Your task to perform on an android device: open app "Airtel Thanks" Image 0: 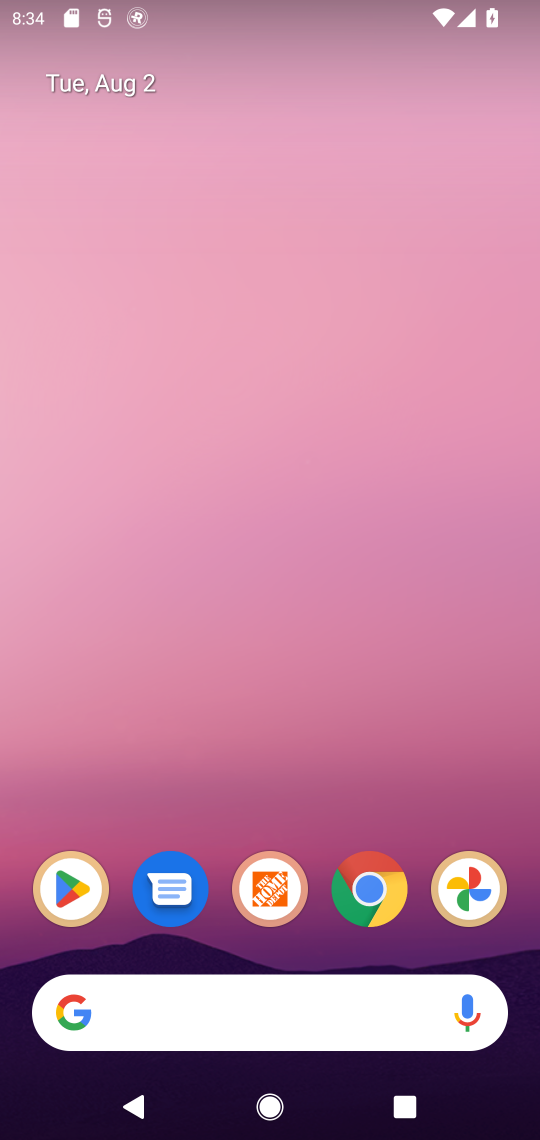
Step 0: press home button
Your task to perform on an android device: open app "Airtel Thanks" Image 1: 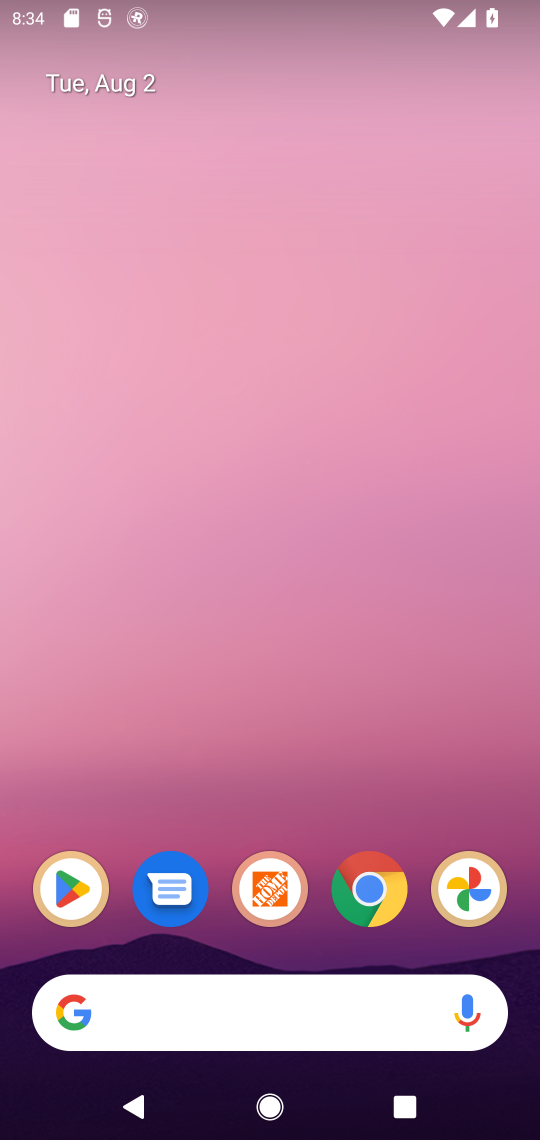
Step 1: click (62, 892)
Your task to perform on an android device: open app "Airtel Thanks" Image 2: 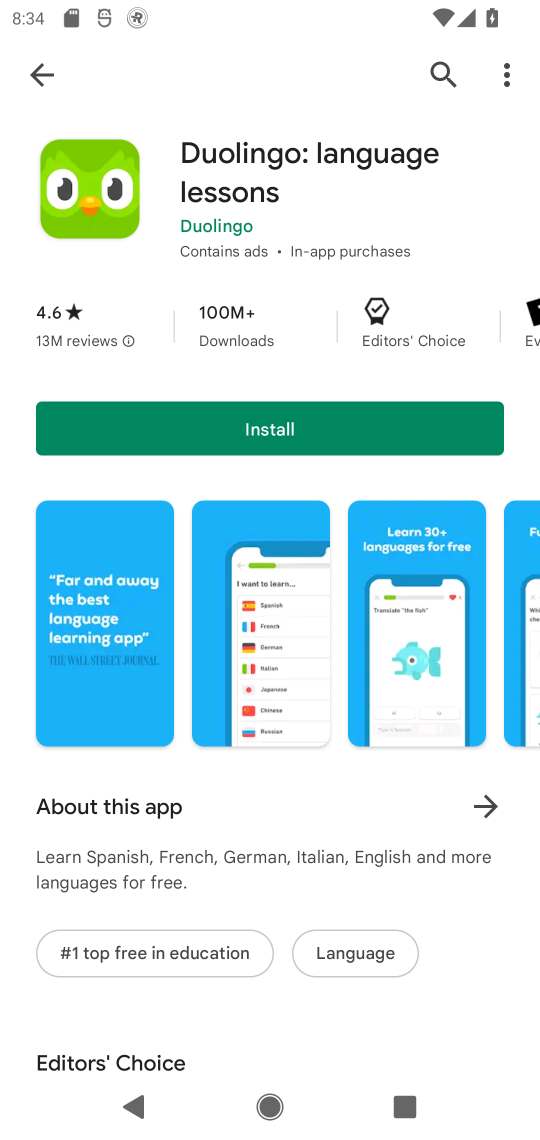
Step 2: click (446, 66)
Your task to perform on an android device: open app "Airtel Thanks" Image 3: 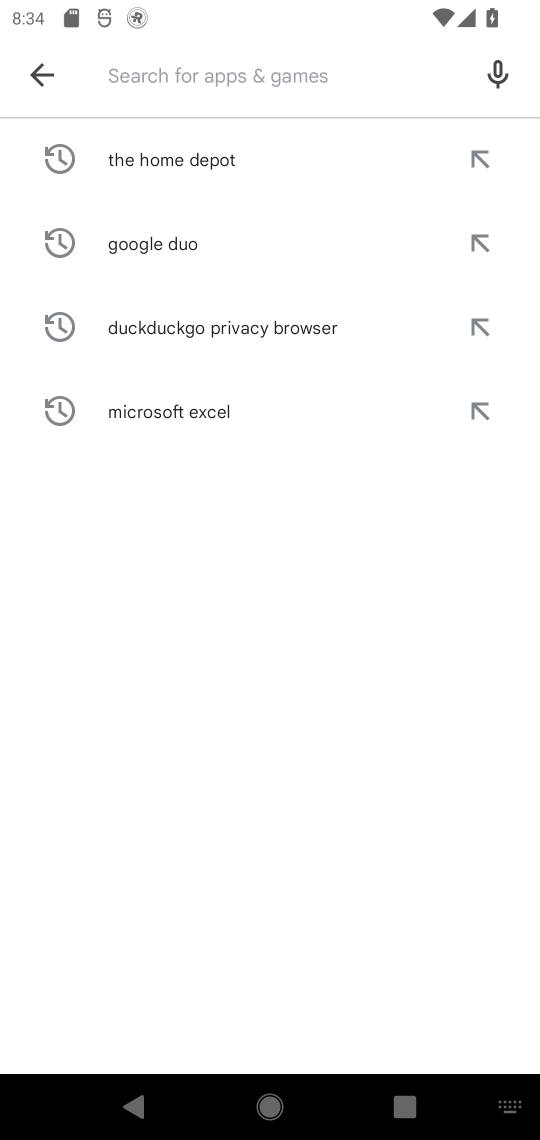
Step 3: type "Airtel Thanks"
Your task to perform on an android device: open app "Airtel Thanks" Image 4: 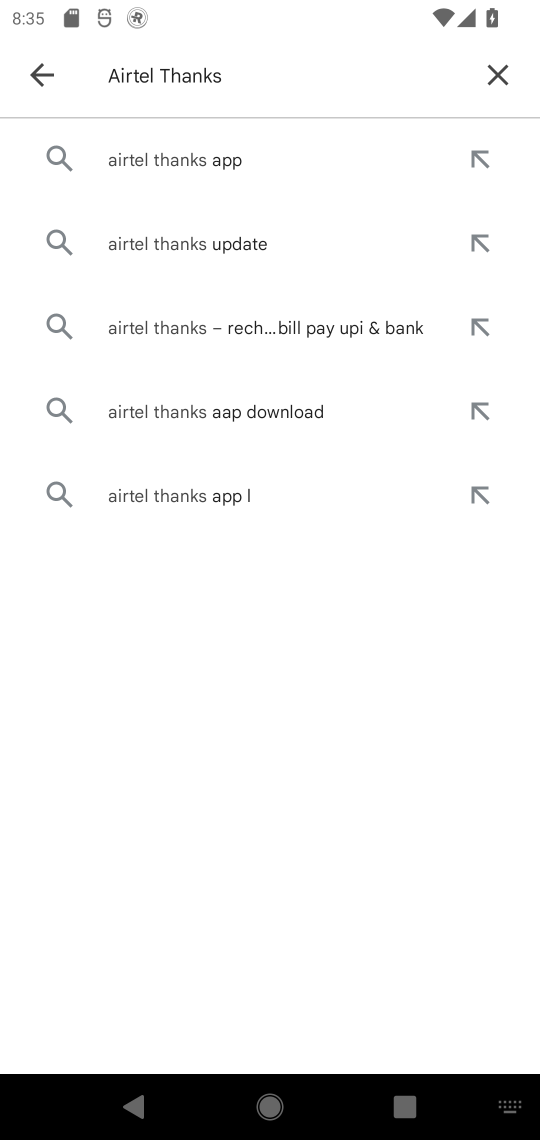
Step 4: click (214, 154)
Your task to perform on an android device: open app "Airtel Thanks" Image 5: 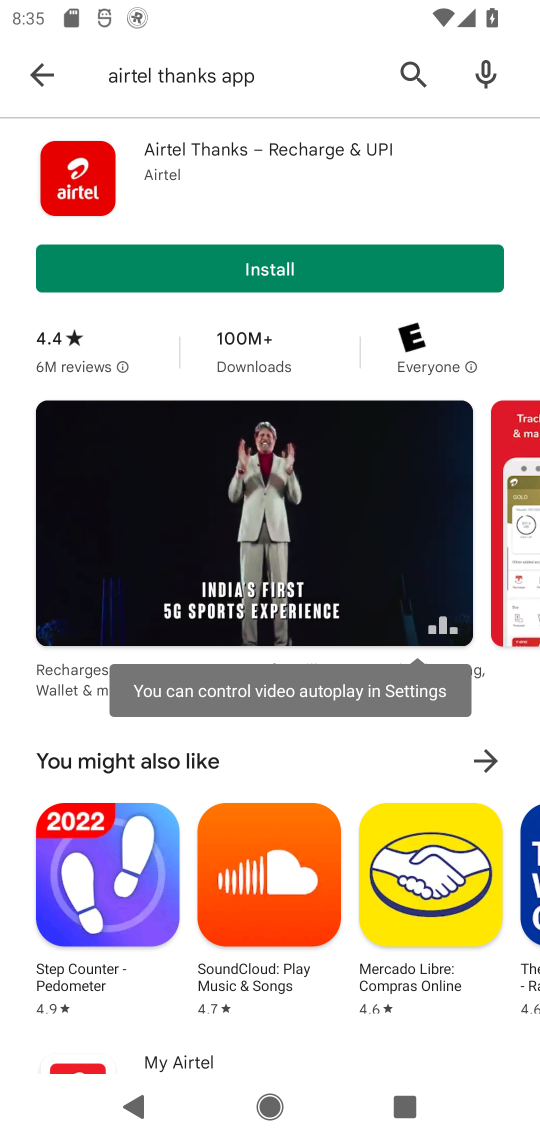
Step 5: task complete